Your task to perform on an android device: turn off javascript in the chrome app Image 0: 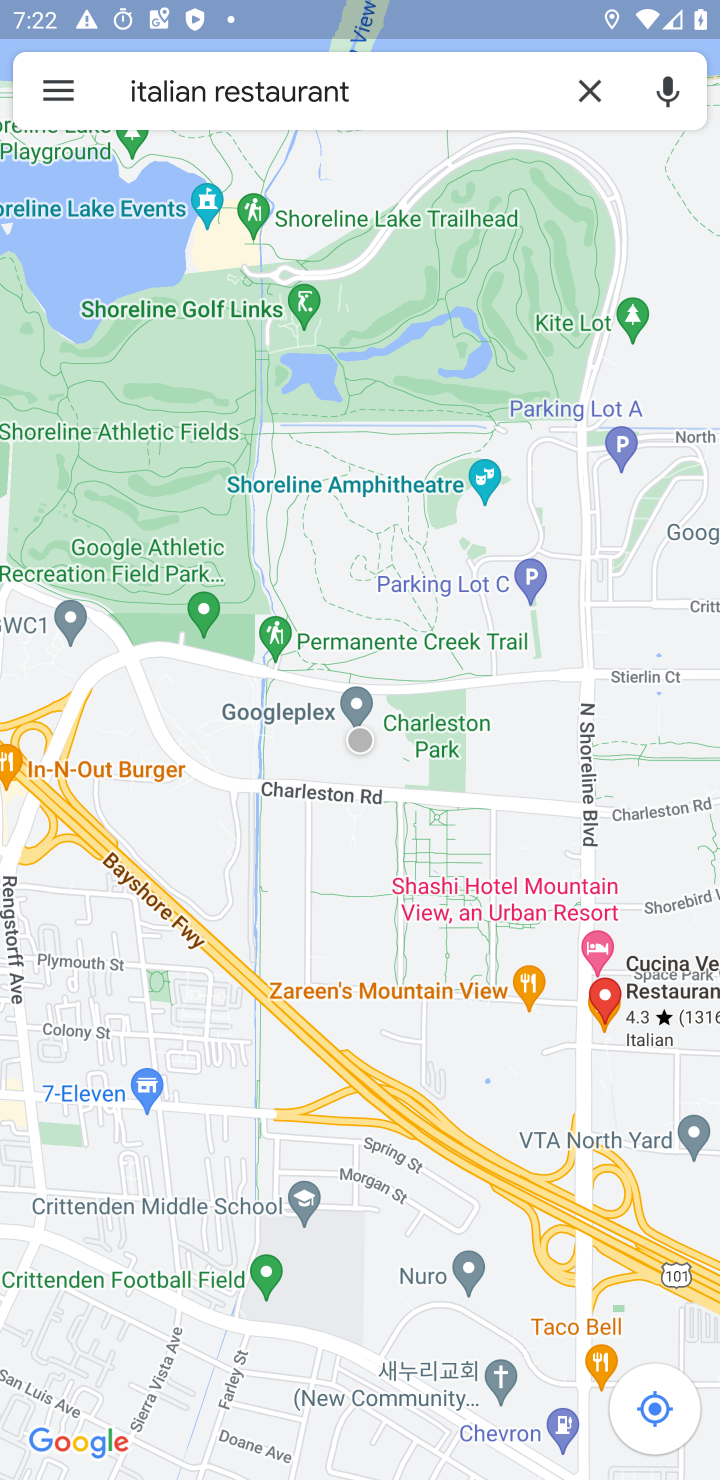
Step 0: press home button
Your task to perform on an android device: turn off javascript in the chrome app Image 1: 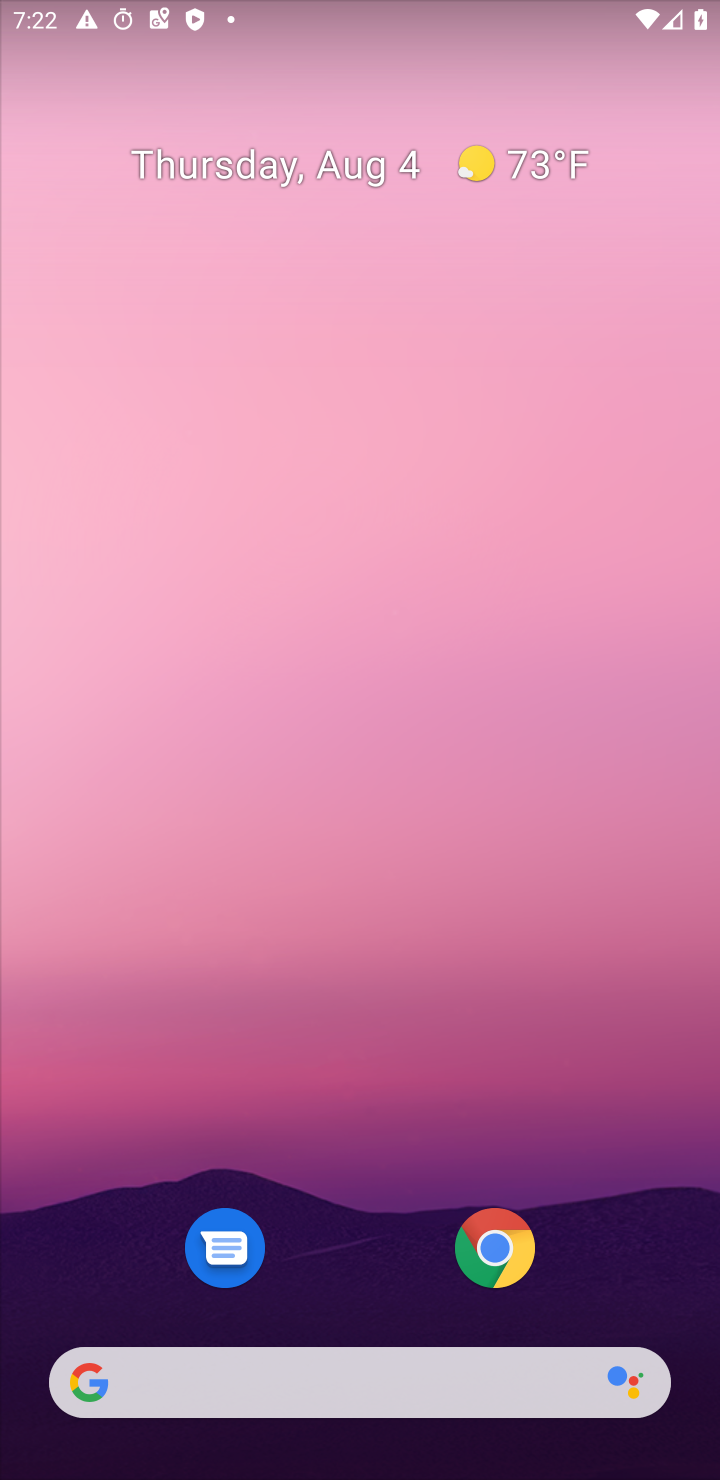
Step 1: drag from (482, 838) to (551, 494)
Your task to perform on an android device: turn off javascript in the chrome app Image 2: 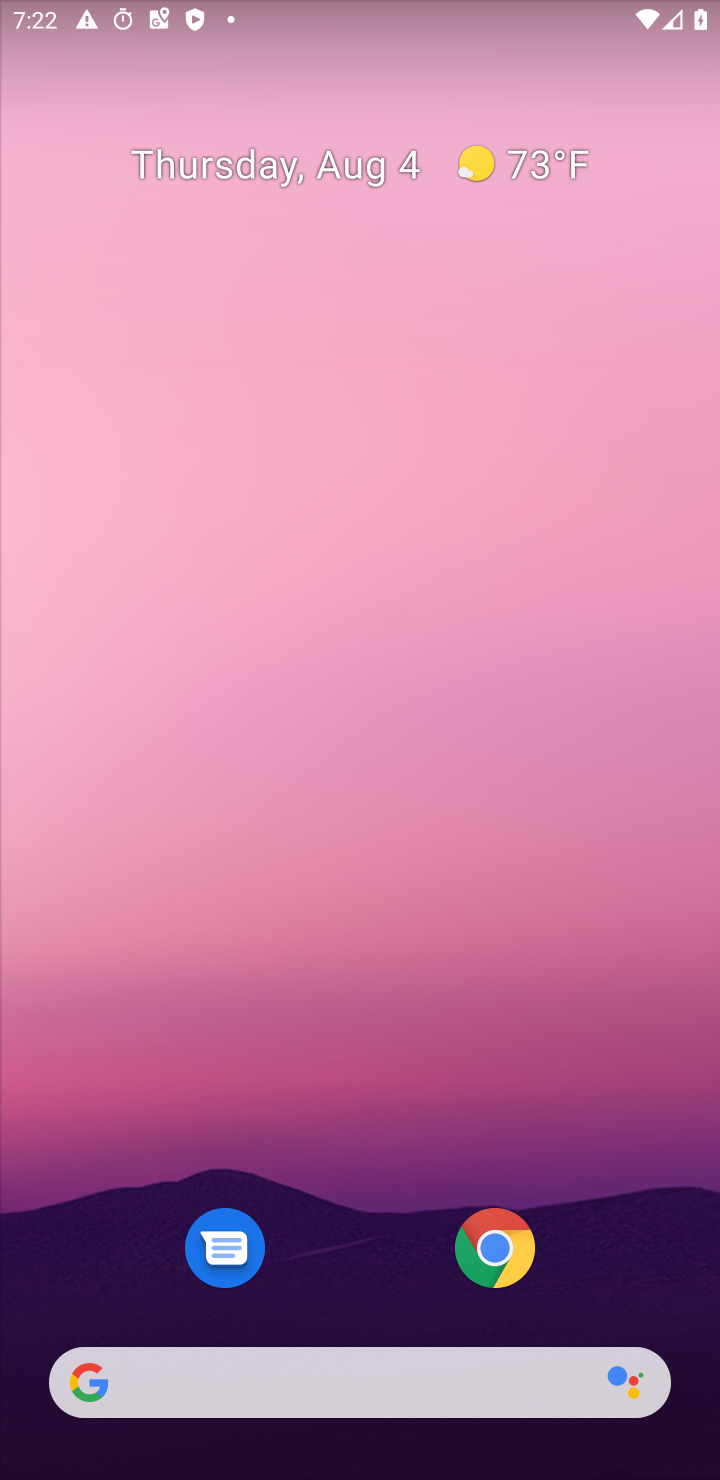
Step 2: drag from (287, 1443) to (320, 495)
Your task to perform on an android device: turn off javascript in the chrome app Image 3: 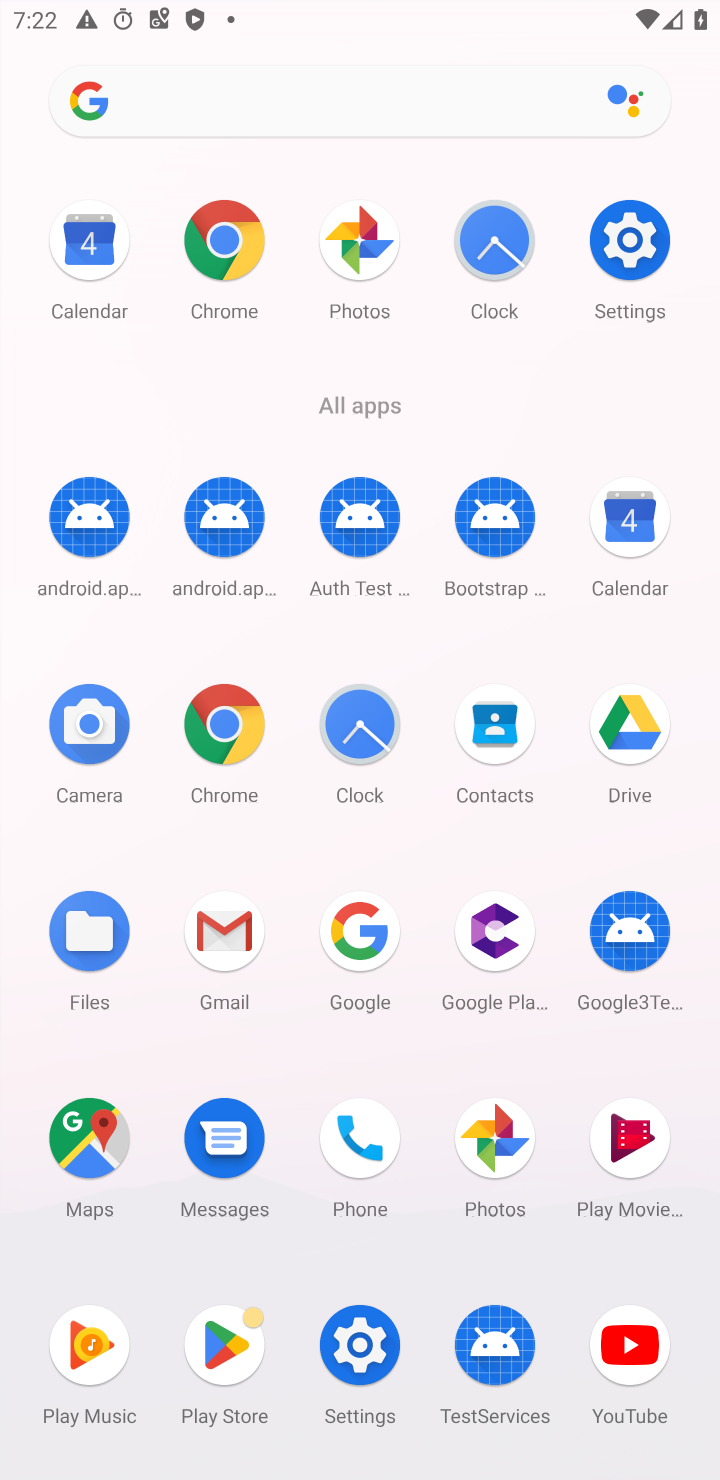
Step 3: click (79, 1155)
Your task to perform on an android device: turn off javascript in the chrome app Image 4: 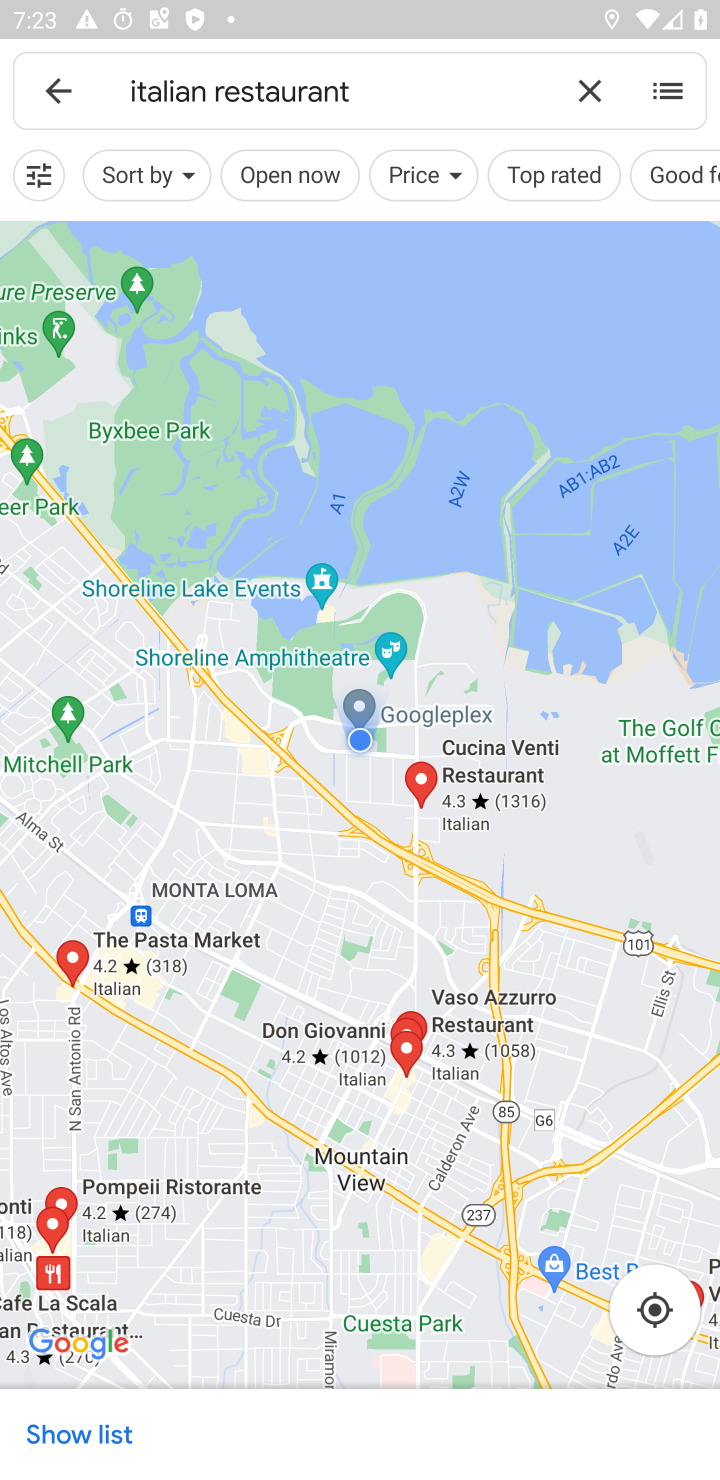
Step 4: press home button
Your task to perform on an android device: turn off javascript in the chrome app Image 5: 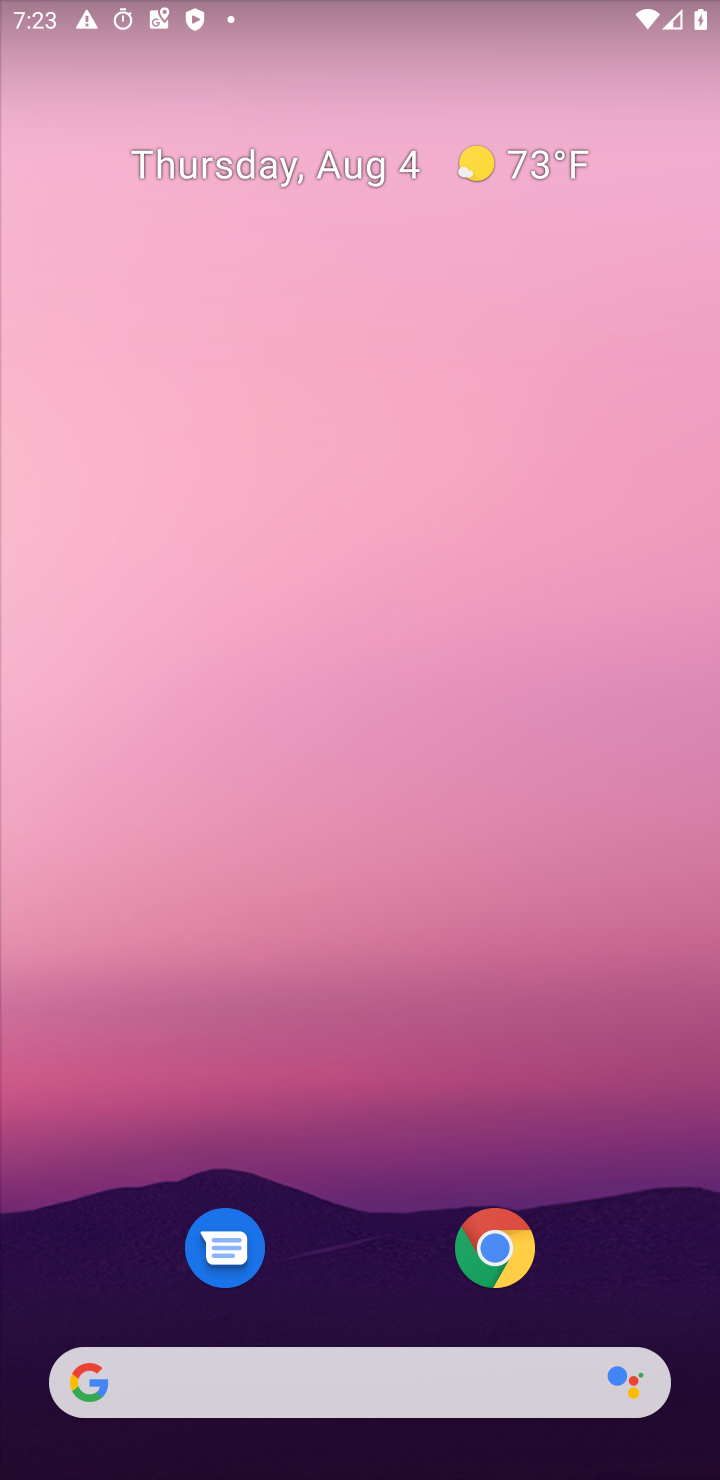
Step 5: drag from (403, 1393) to (338, 327)
Your task to perform on an android device: turn off javascript in the chrome app Image 6: 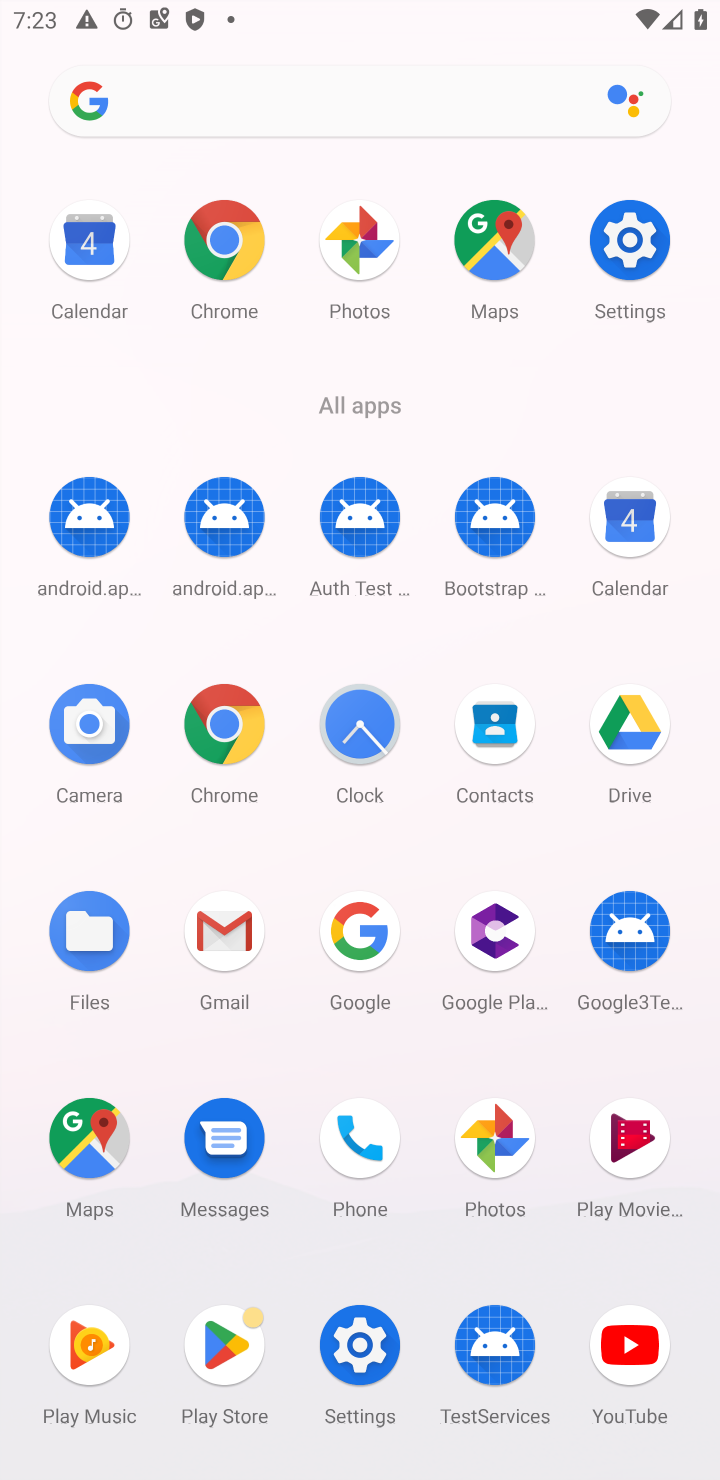
Step 6: click (229, 253)
Your task to perform on an android device: turn off javascript in the chrome app Image 7: 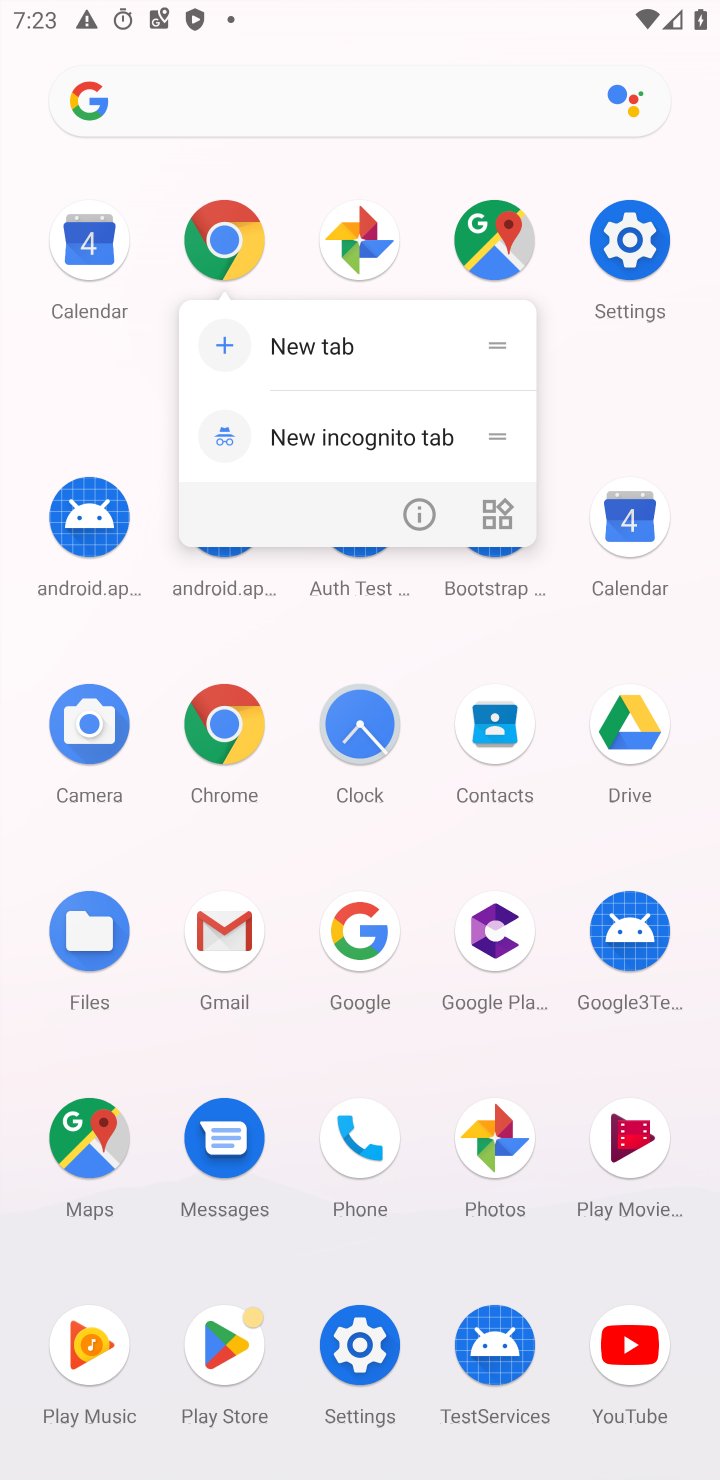
Step 7: click (228, 243)
Your task to perform on an android device: turn off javascript in the chrome app Image 8: 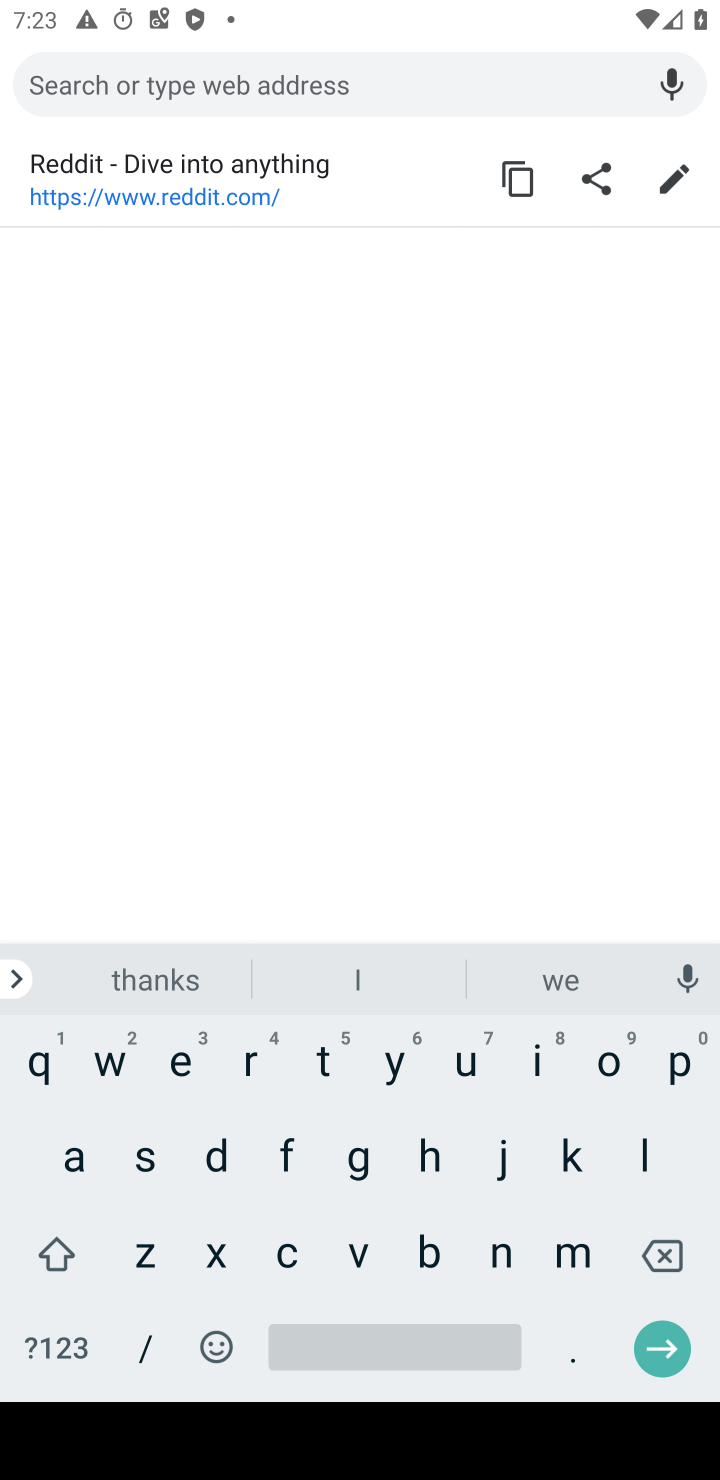
Step 8: press back button
Your task to perform on an android device: turn off javascript in the chrome app Image 9: 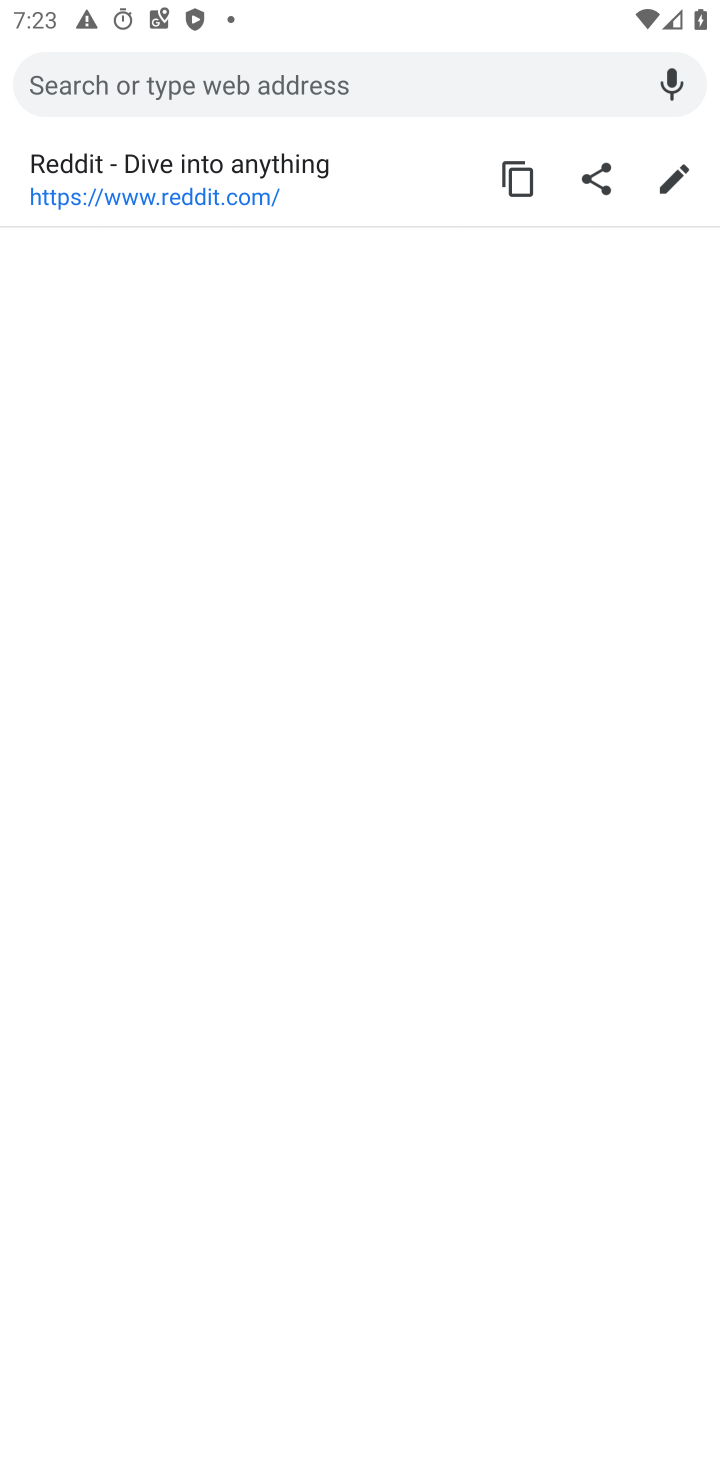
Step 9: press back button
Your task to perform on an android device: turn off javascript in the chrome app Image 10: 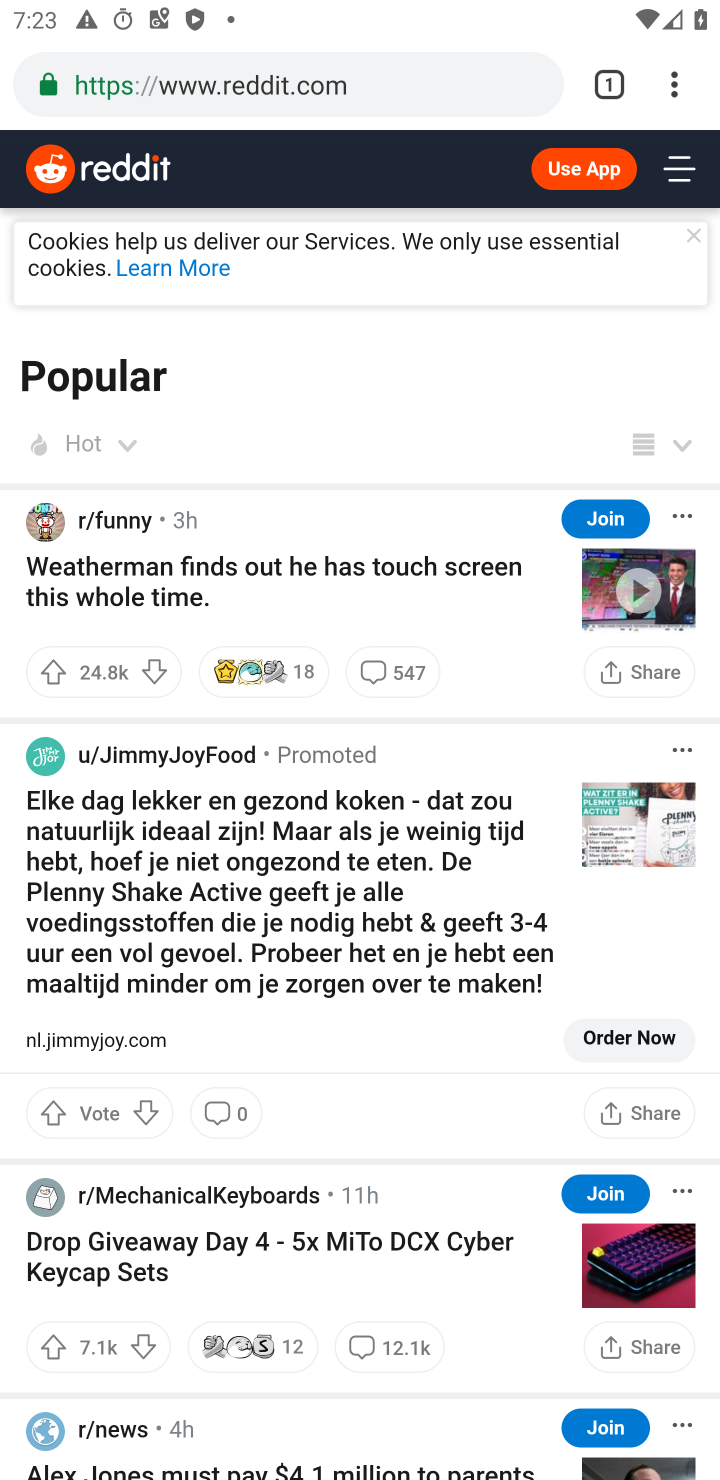
Step 10: click (679, 100)
Your task to perform on an android device: turn off javascript in the chrome app Image 11: 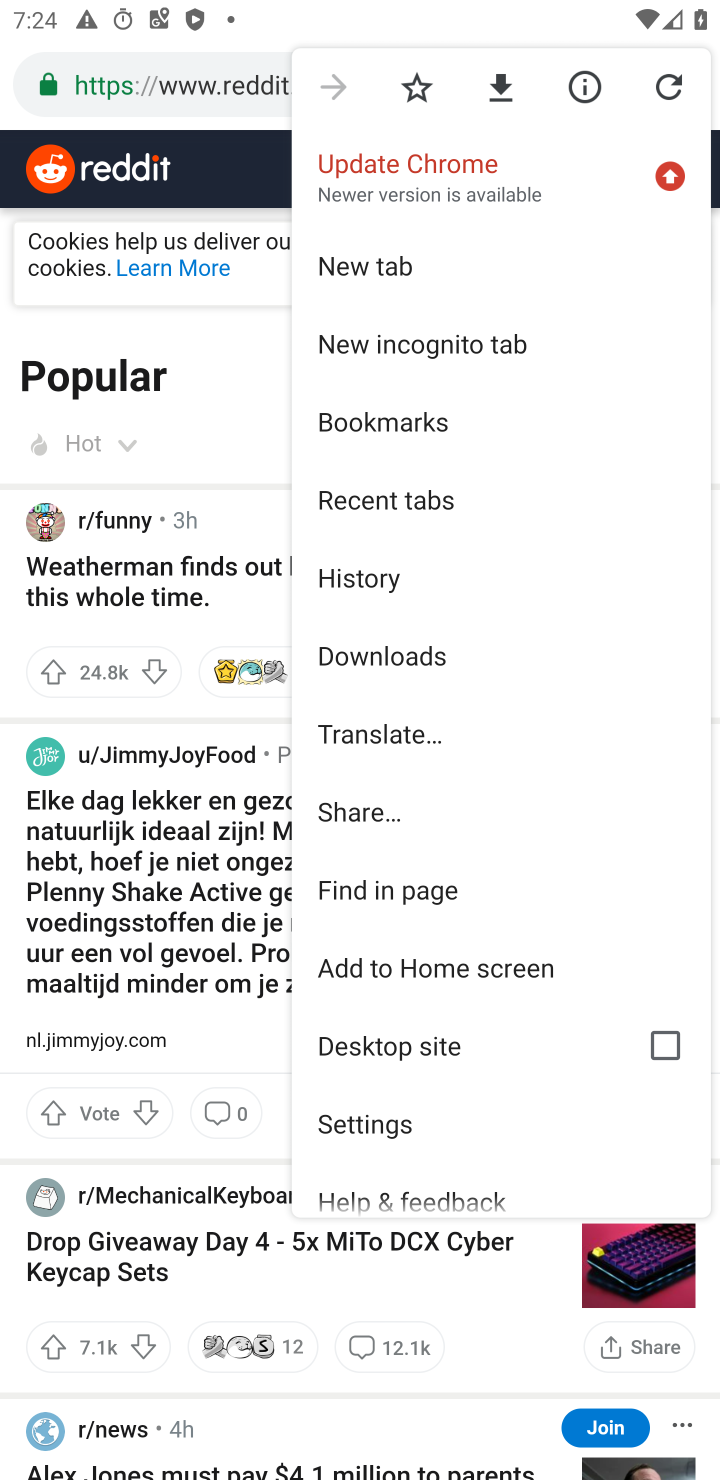
Step 11: click (371, 1116)
Your task to perform on an android device: turn off javascript in the chrome app Image 12: 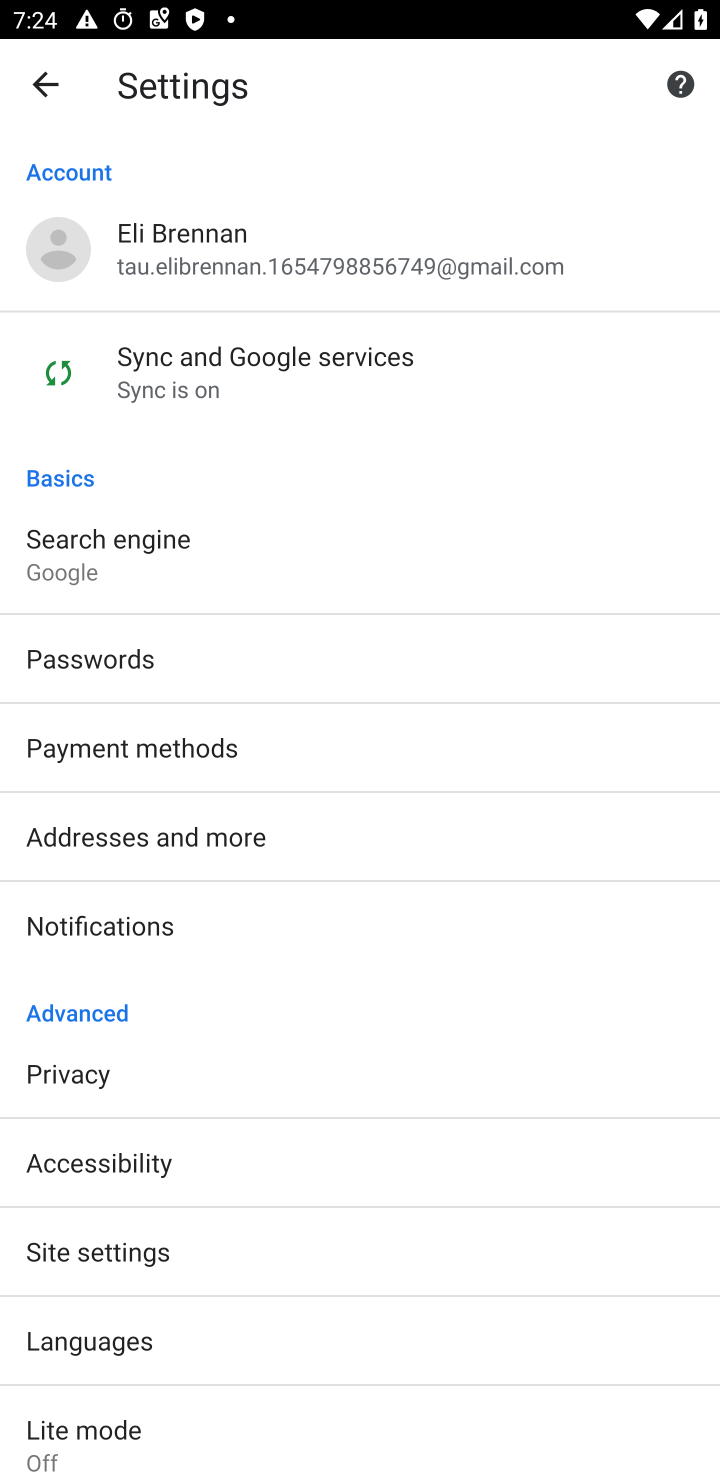
Step 12: click (130, 1223)
Your task to perform on an android device: turn off javascript in the chrome app Image 13: 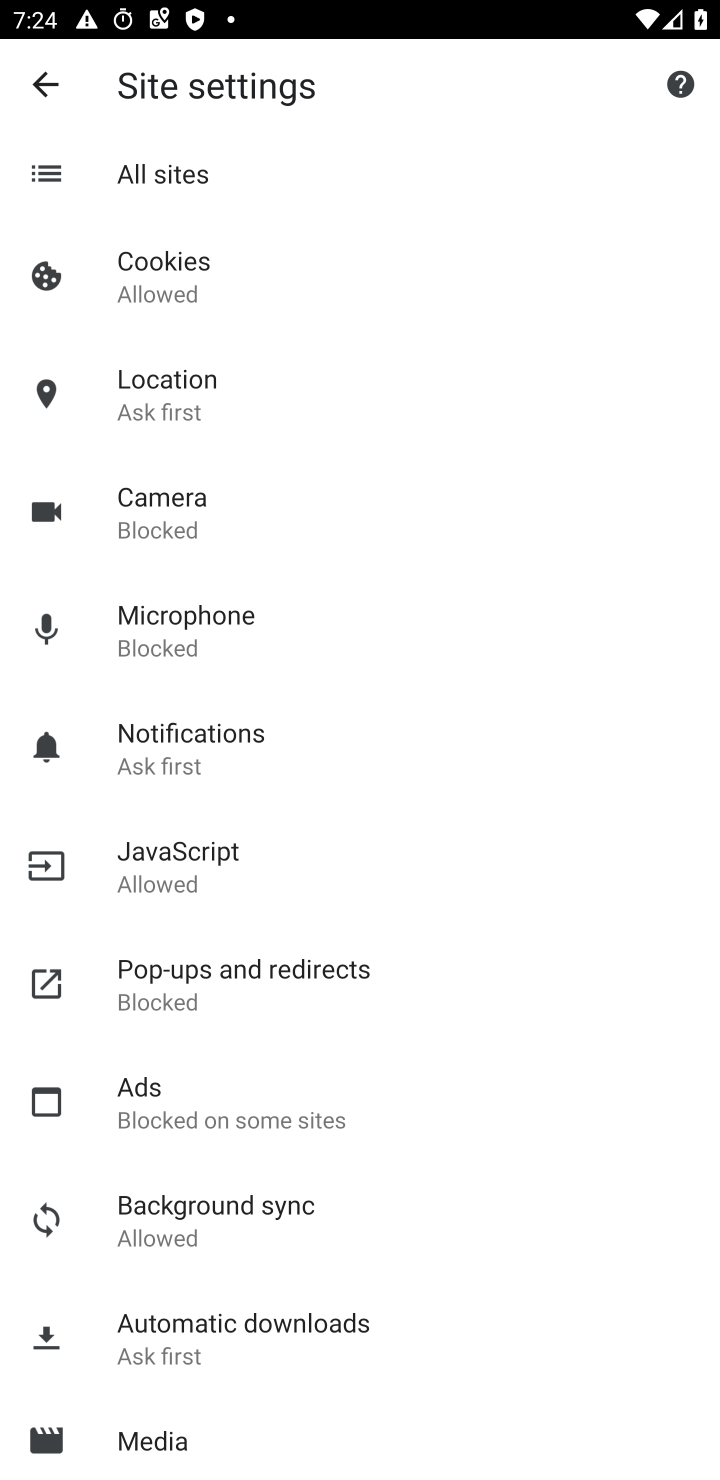
Step 13: click (227, 859)
Your task to perform on an android device: turn off javascript in the chrome app Image 14: 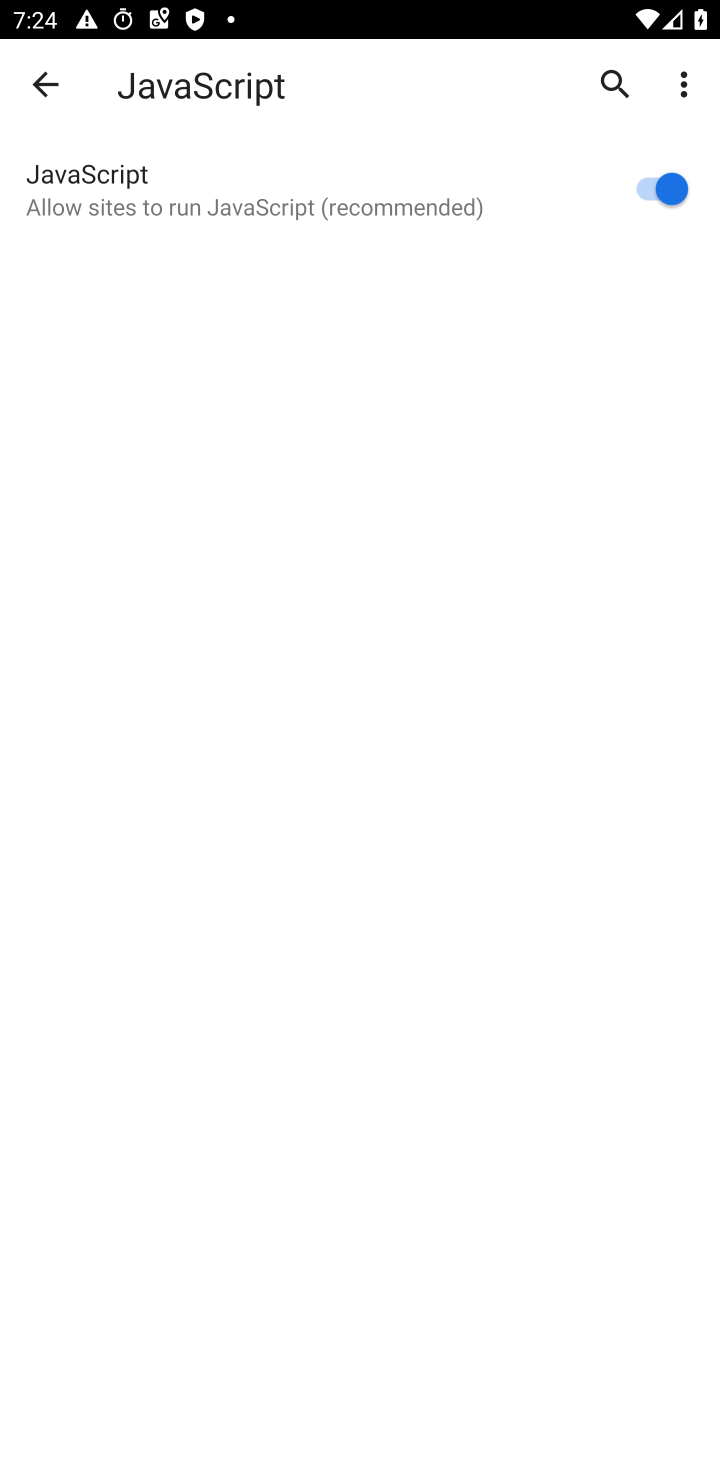
Step 14: click (625, 188)
Your task to perform on an android device: turn off javascript in the chrome app Image 15: 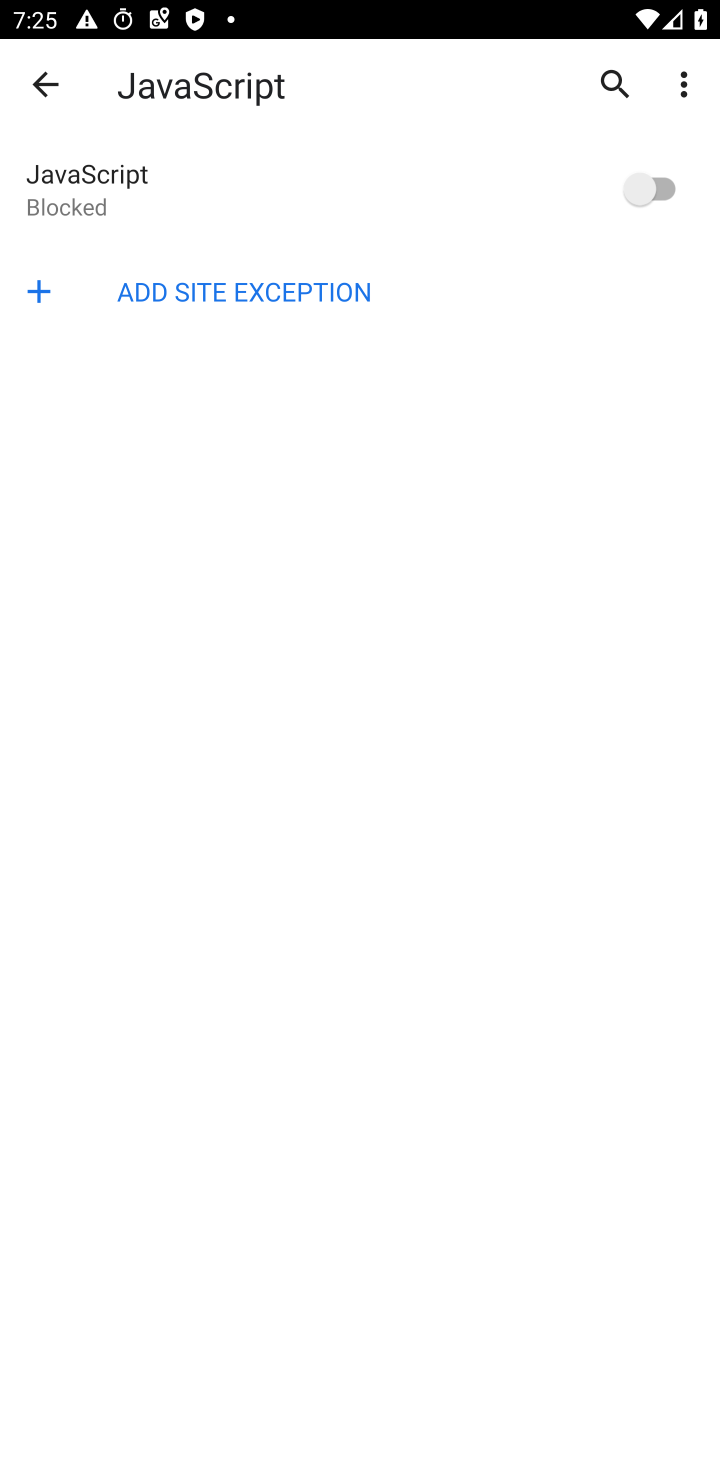
Step 15: task complete